Your task to perform on an android device: Open Google Image 0: 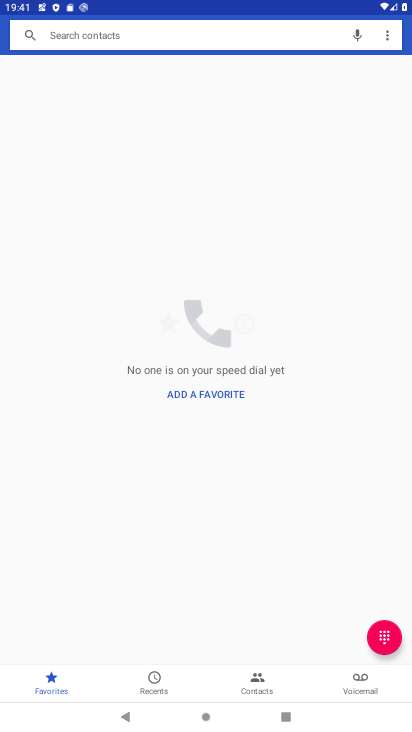
Step 0: press home button
Your task to perform on an android device: Open Google Image 1: 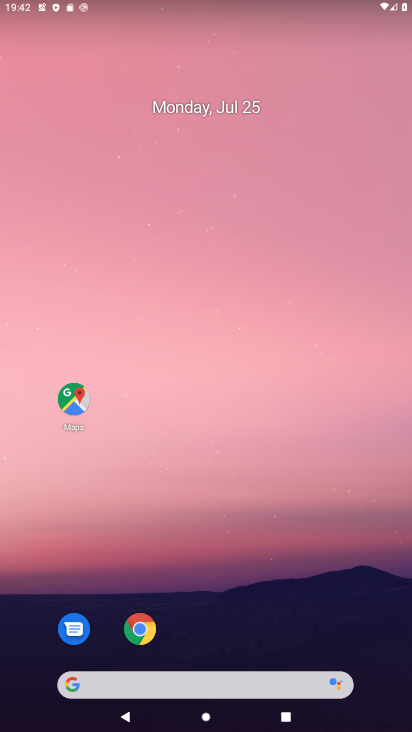
Step 1: click (96, 685)
Your task to perform on an android device: Open Google Image 2: 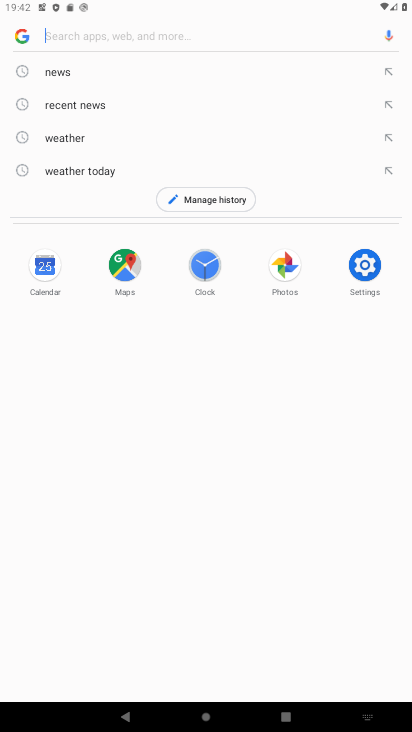
Step 2: task complete